Your task to perform on an android device: delete a single message in the gmail app Image 0: 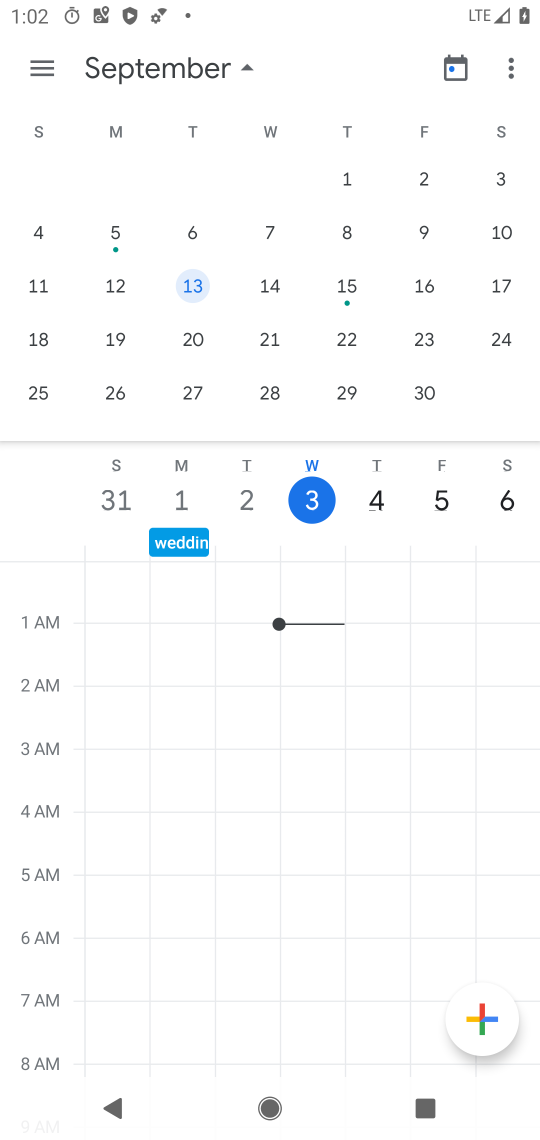
Step 0: press home button
Your task to perform on an android device: delete a single message in the gmail app Image 1: 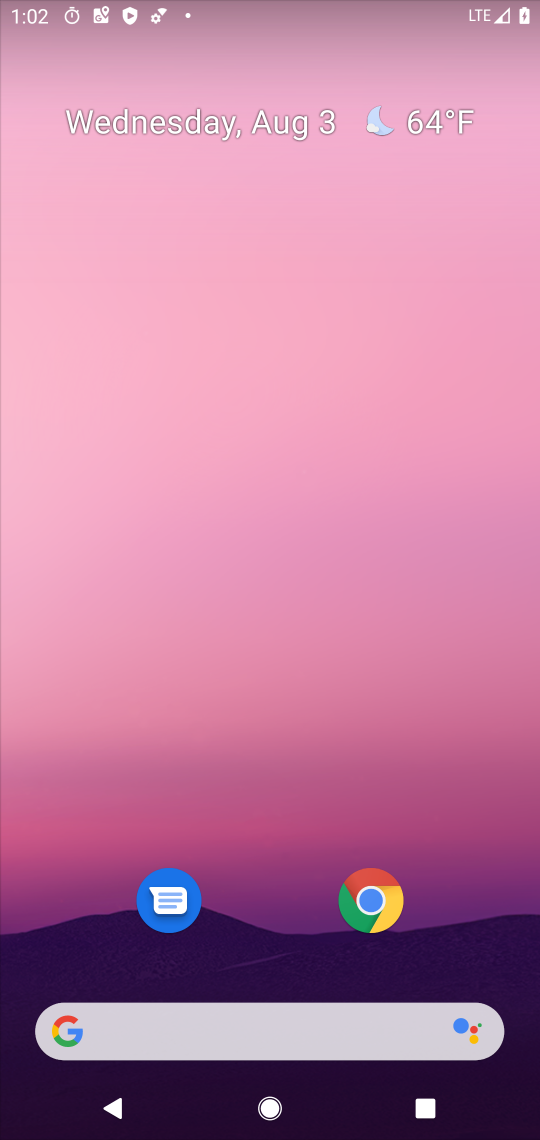
Step 1: drag from (257, 444) to (285, 19)
Your task to perform on an android device: delete a single message in the gmail app Image 2: 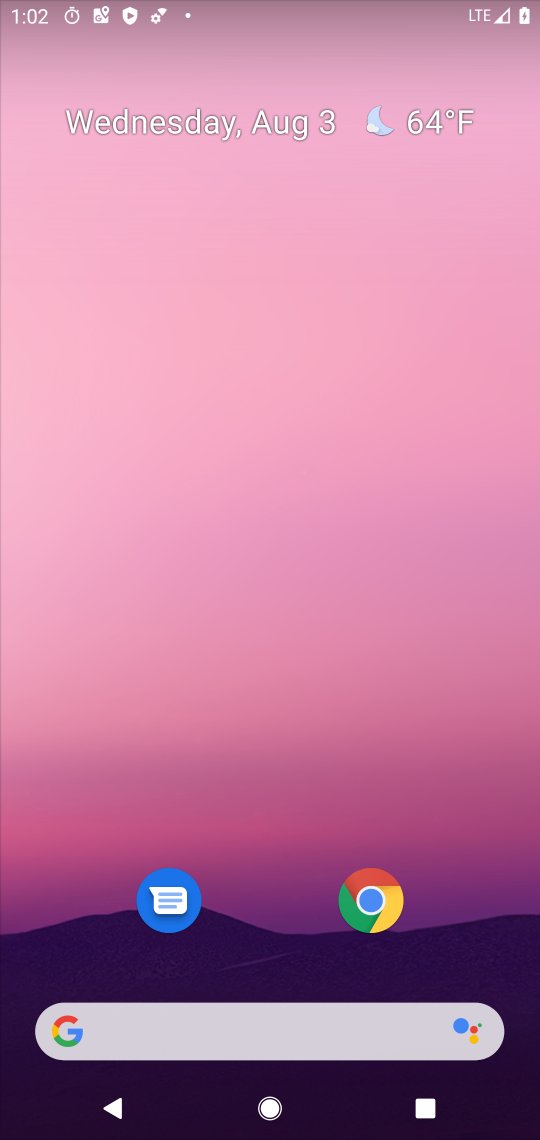
Step 2: drag from (245, 775) to (334, 28)
Your task to perform on an android device: delete a single message in the gmail app Image 3: 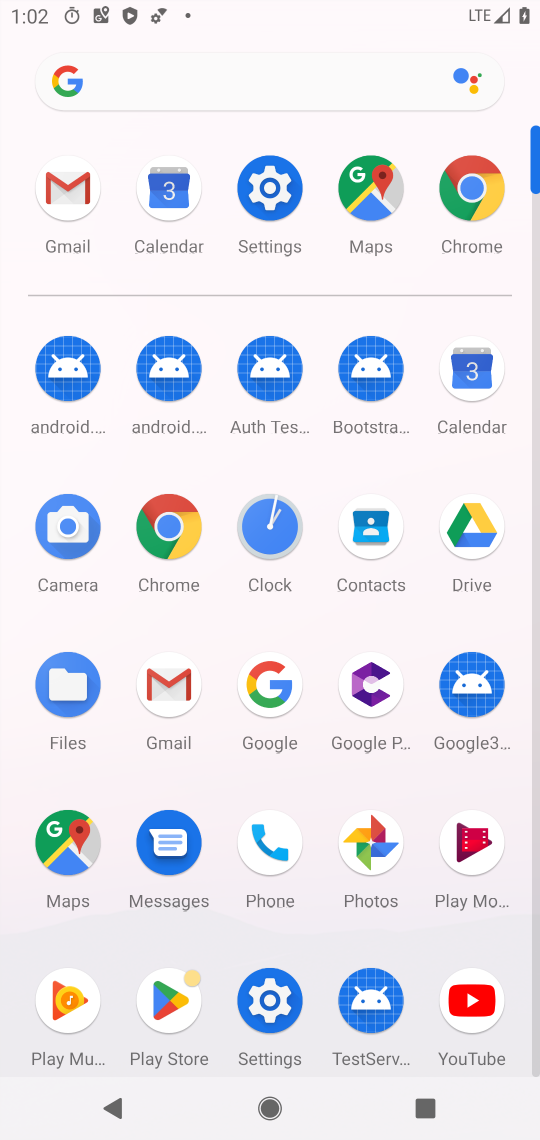
Step 3: click (177, 707)
Your task to perform on an android device: delete a single message in the gmail app Image 4: 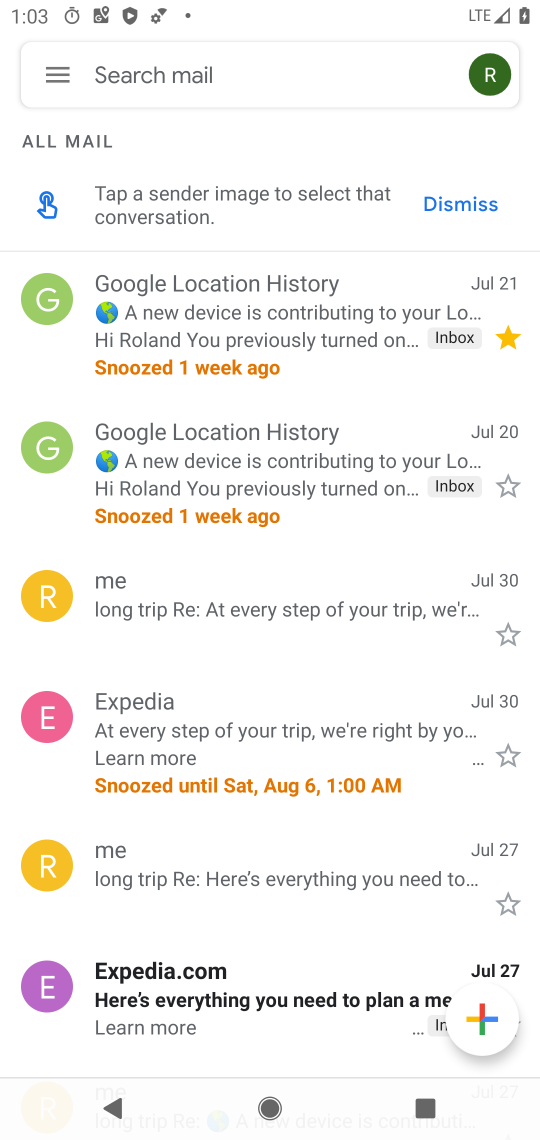
Step 4: click (57, 79)
Your task to perform on an android device: delete a single message in the gmail app Image 5: 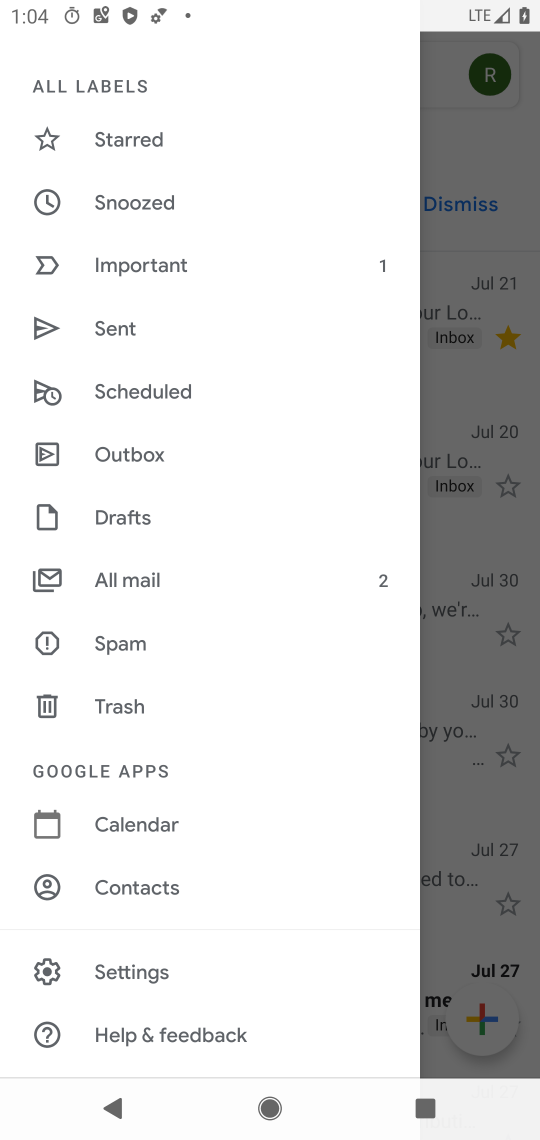
Step 5: click (119, 578)
Your task to perform on an android device: delete a single message in the gmail app Image 6: 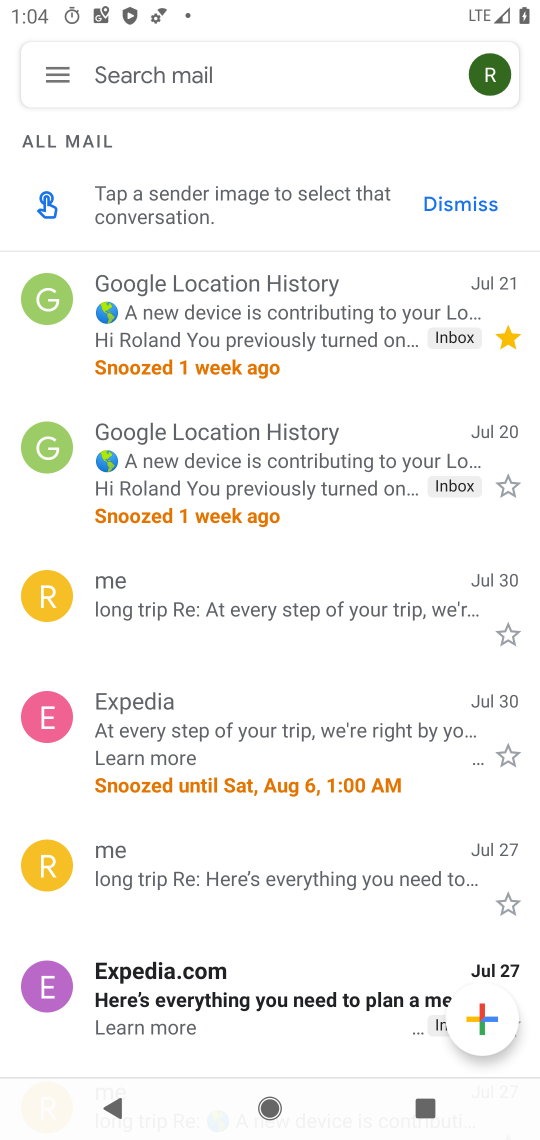
Step 6: click (299, 292)
Your task to perform on an android device: delete a single message in the gmail app Image 7: 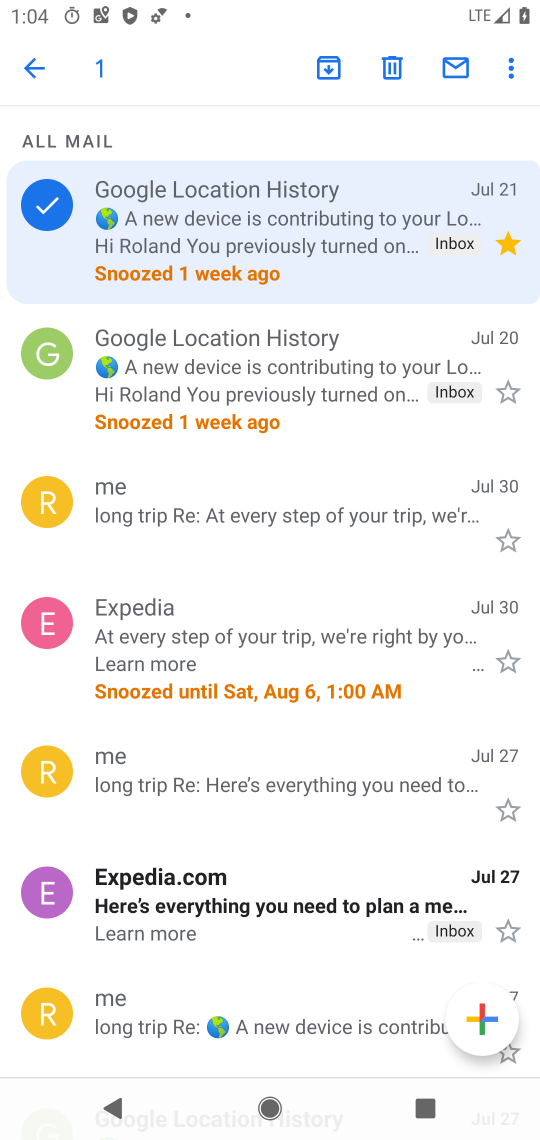
Step 7: click (388, 57)
Your task to perform on an android device: delete a single message in the gmail app Image 8: 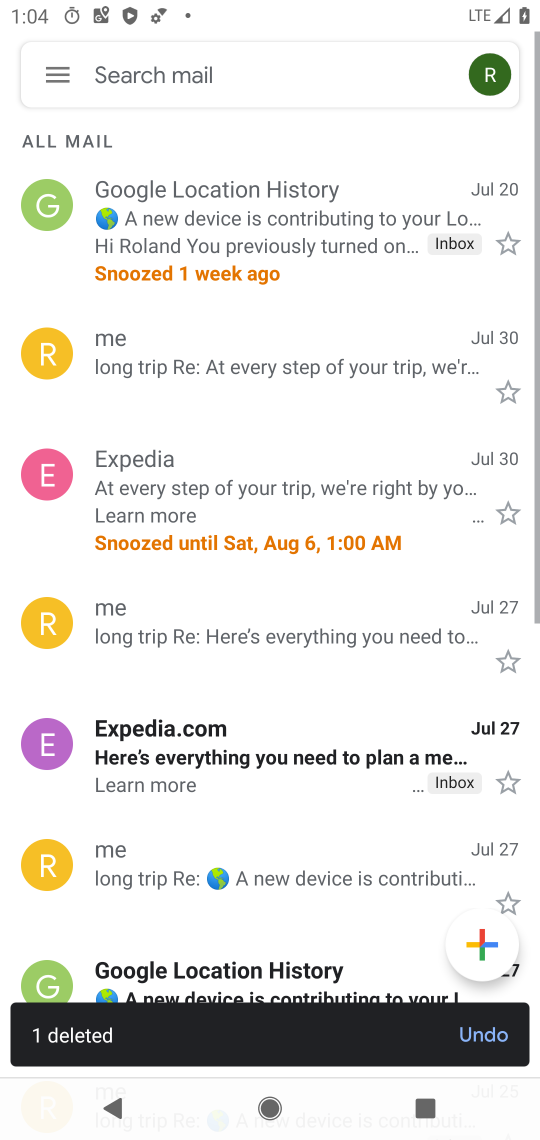
Step 8: task complete